Your task to perform on an android device: turn on priority inbox in the gmail app Image 0: 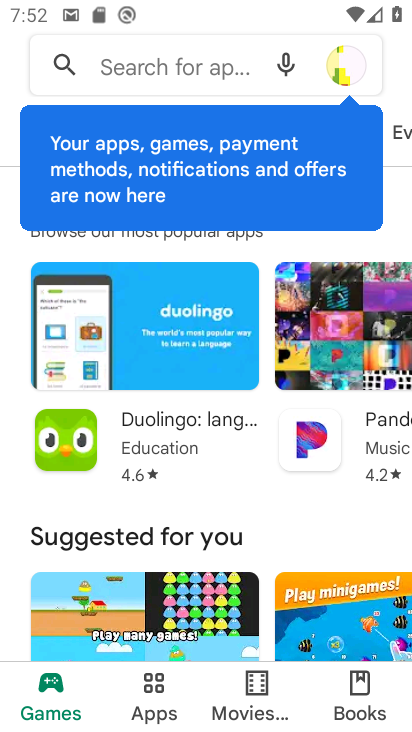
Step 0: press home button
Your task to perform on an android device: turn on priority inbox in the gmail app Image 1: 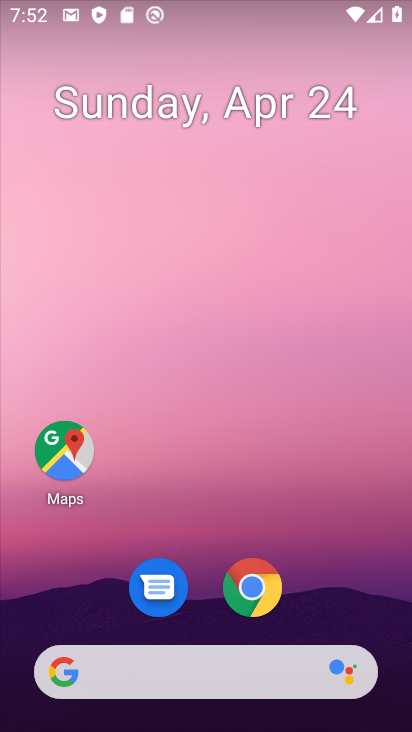
Step 1: drag from (337, 548) to (241, 0)
Your task to perform on an android device: turn on priority inbox in the gmail app Image 2: 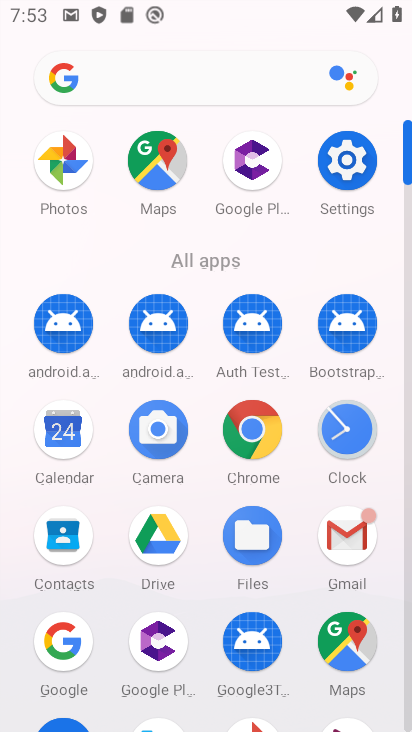
Step 2: click (346, 533)
Your task to perform on an android device: turn on priority inbox in the gmail app Image 3: 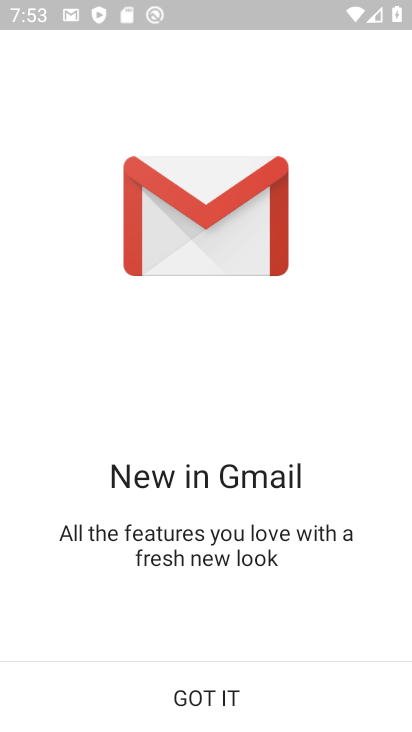
Step 3: click (241, 694)
Your task to perform on an android device: turn on priority inbox in the gmail app Image 4: 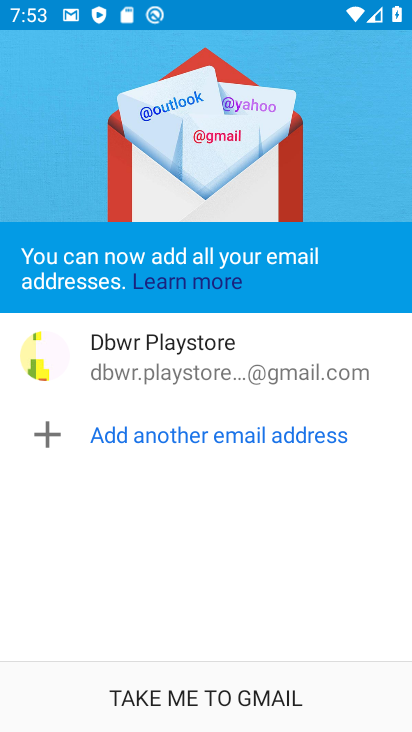
Step 4: click (241, 693)
Your task to perform on an android device: turn on priority inbox in the gmail app Image 5: 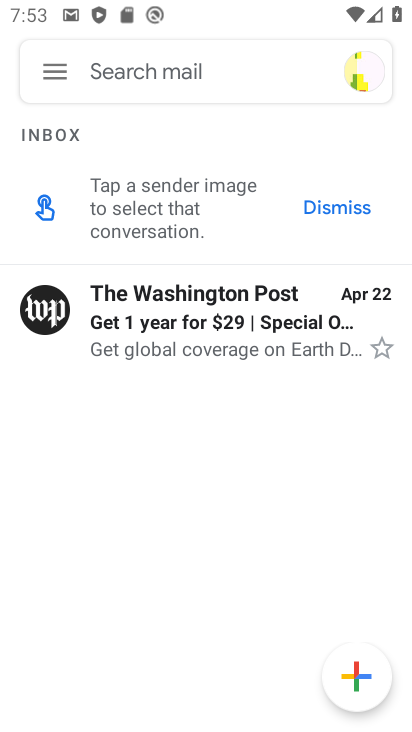
Step 5: click (61, 75)
Your task to perform on an android device: turn on priority inbox in the gmail app Image 6: 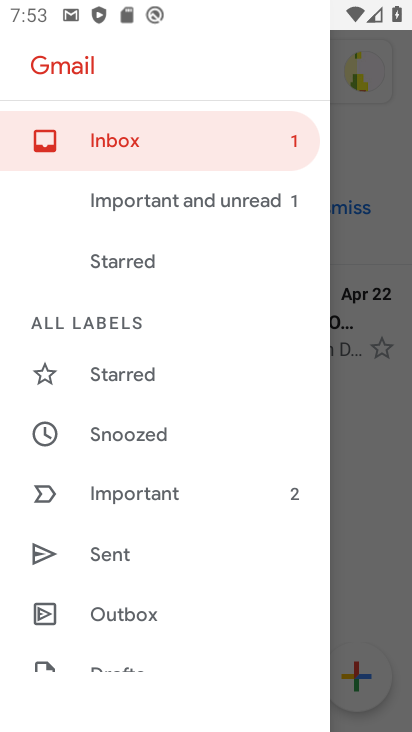
Step 6: drag from (227, 595) to (208, 119)
Your task to perform on an android device: turn on priority inbox in the gmail app Image 7: 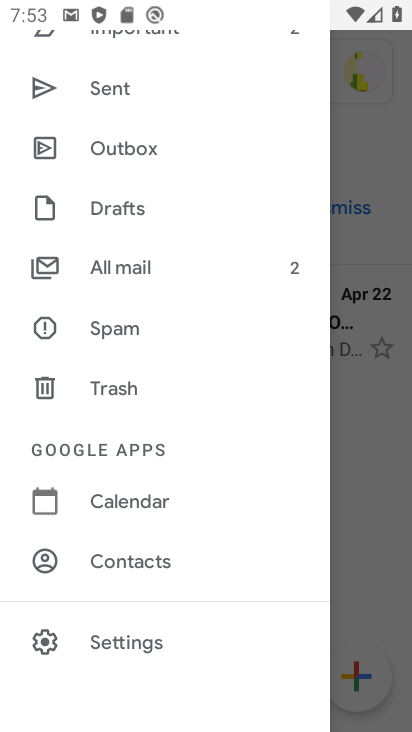
Step 7: click (151, 645)
Your task to perform on an android device: turn on priority inbox in the gmail app Image 8: 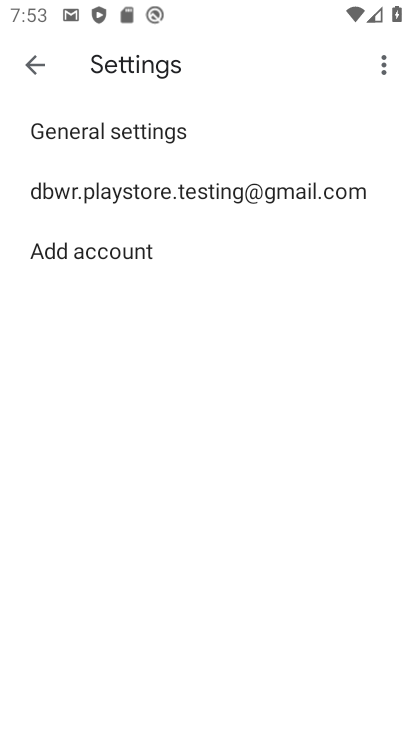
Step 8: click (168, 181)
Your task to perform on an android device: turn on priority inbox in the gmail app Image 9: 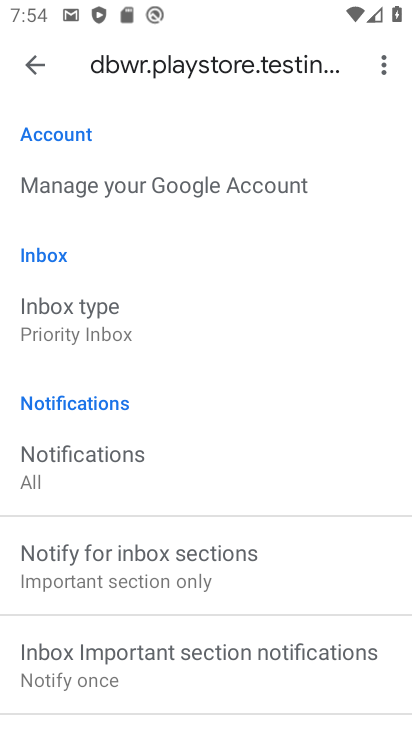
Step 9: click (121, 297)
Your task to perform on an android device: turn on priority inbox in the gmail app Image 10: 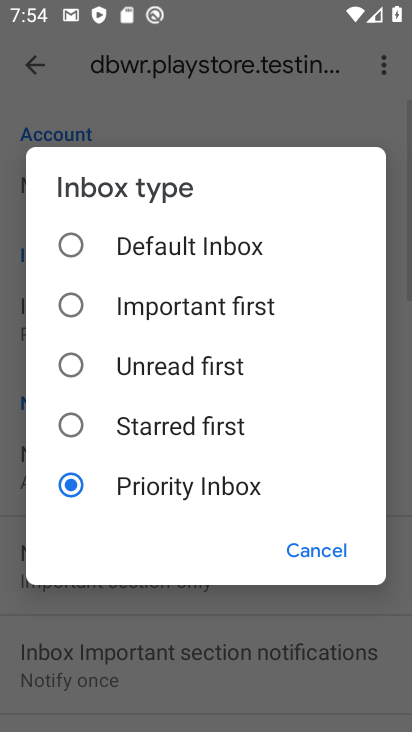
Step 10: task complete